Your task to perform on an android device: set an alarm Image 0: 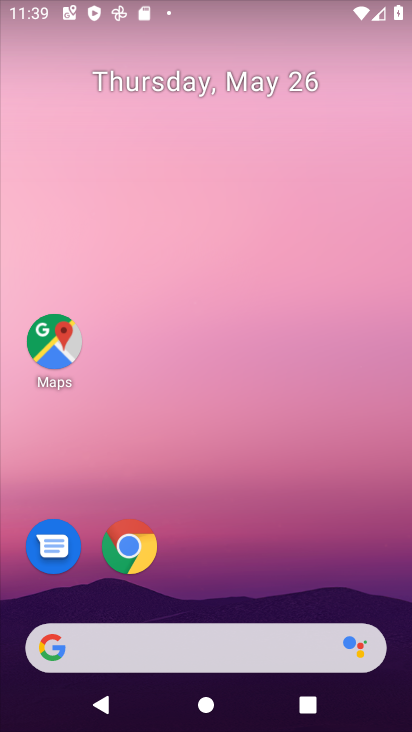
Step 0: drag from (247, 561) to (297, 55)
Your task to perform on an android device: set an alarm Image 1: 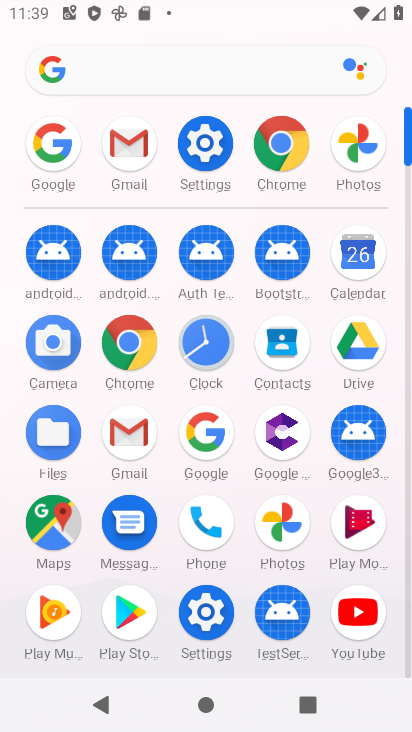
Step 1: click (207, 345)
Your task to perform on an android device: set an alarm Image 2: 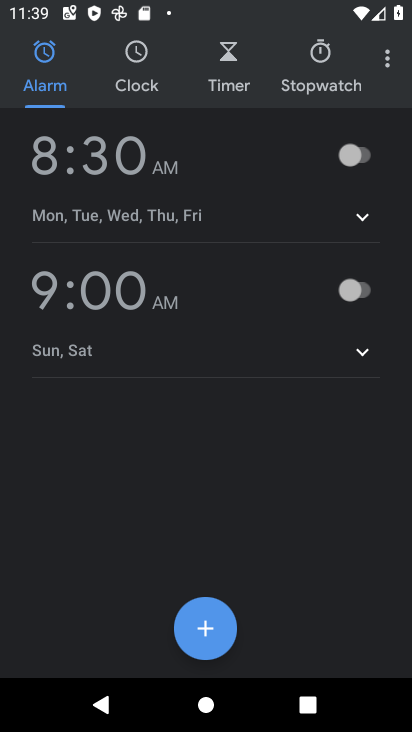
Step 2: click (354, 153)
Your task to perform on an android device: set an alarm Image 3: 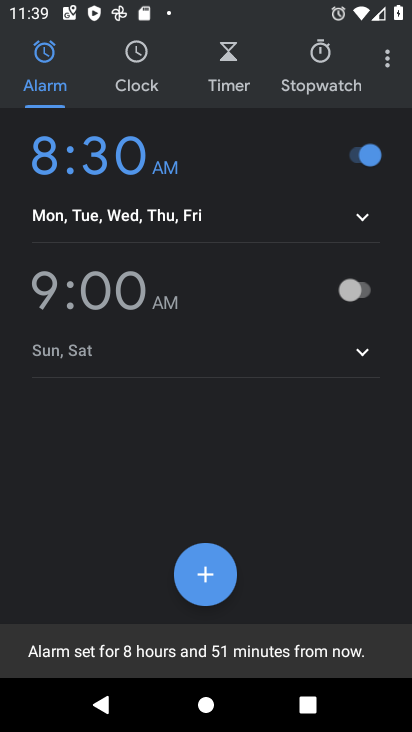
Step 3: task complete